Your task to perform on an android device: Open notification settings Image 0: 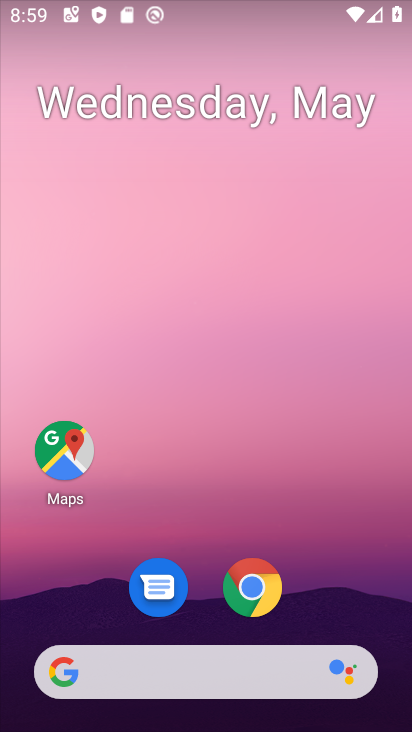
Step 0: drag from (208, 726) to (209, 90)
Your task to perform on an android device: Open notification settings Image 1: 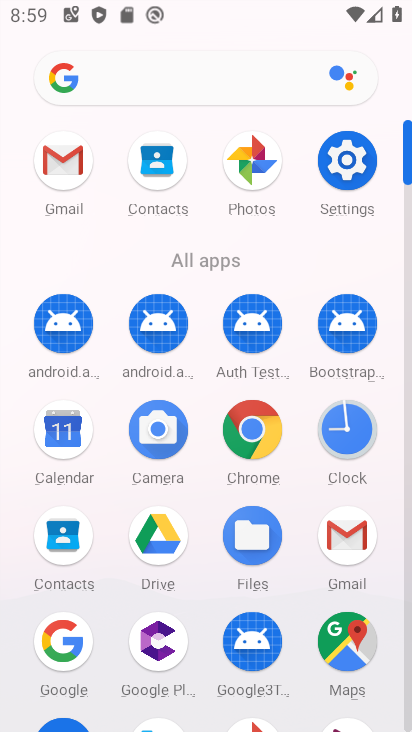
Step 1: click (339, 159)
Your task to perform on an android device: Open notification settings Image 2: 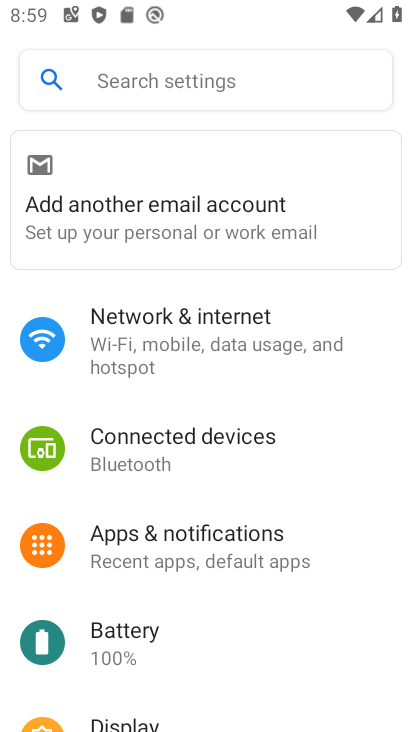
Step 2: click (184, 542)
Your task to perform on an android device: Open notification settings Image 3: 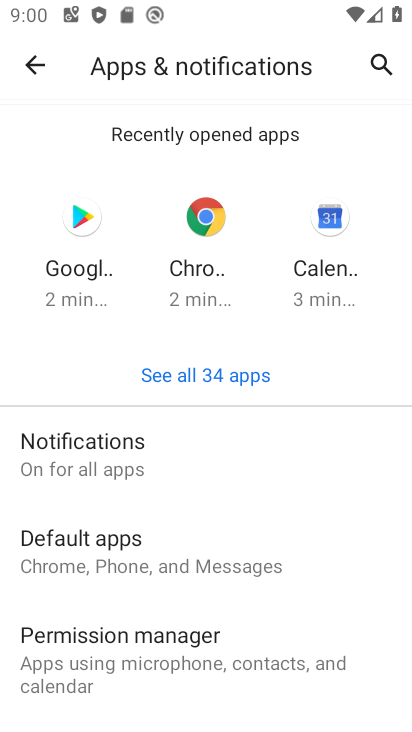
Step 3: click (87, 460)
Your task to perform on an android device: Open notification settings Image 4: 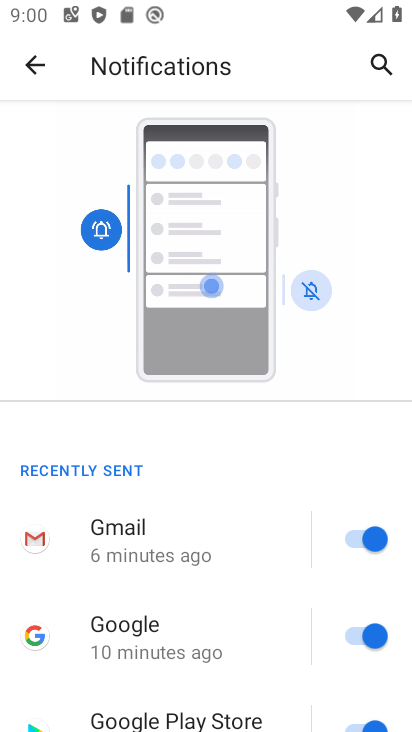
Step 4: task complete